Your task to perform on an android device: When is my next meeting? Image 0: 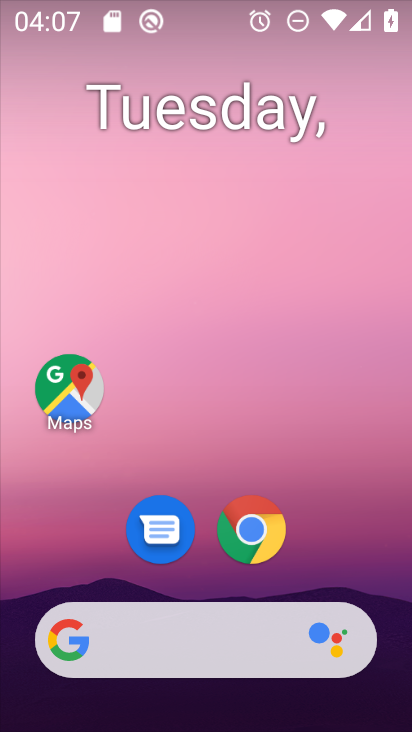
Step 0: drag from (313, 550) to (286, 173)
Your task to perform on an android device: When is my next meeting? Image 1: 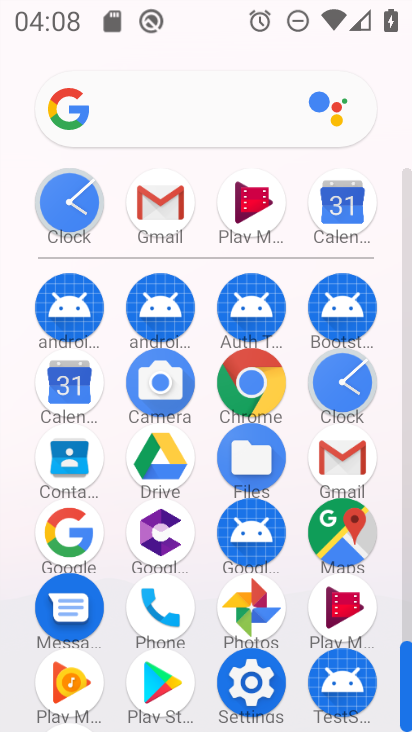
Step 1: click (65, 388)
Your task to perform on an android device: When is my next meeting? Image 2: 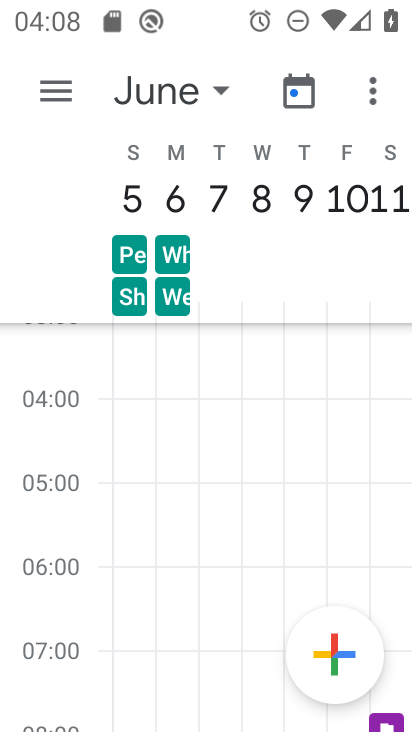
Step 2: drag from (140, 172) to (349, 204)
Your task to perform on an android device: When is my next meeting? Image 3: 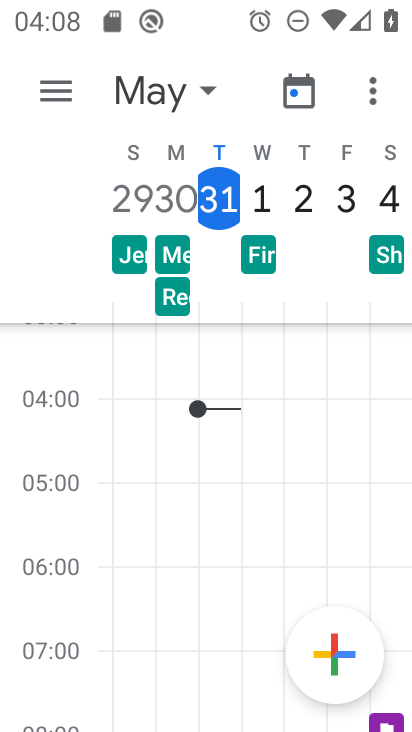
Step 3: click (274, 197)
Your task to perform on an android device: When is my next meeting? Image 4: 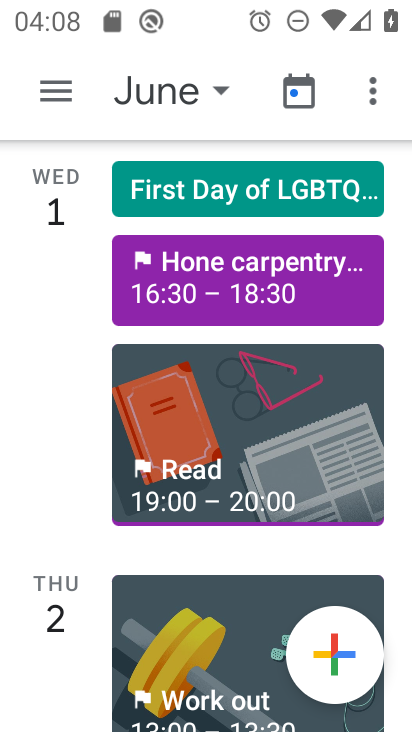
Step 4: task complete